Your task to perform on an android device: Open location settings Image 0: 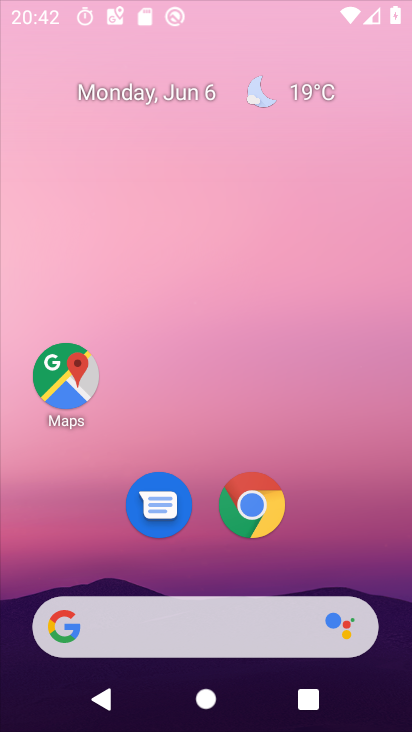
Step 0: press home button
Your task to perform on an android device: Open location settings Image 1: 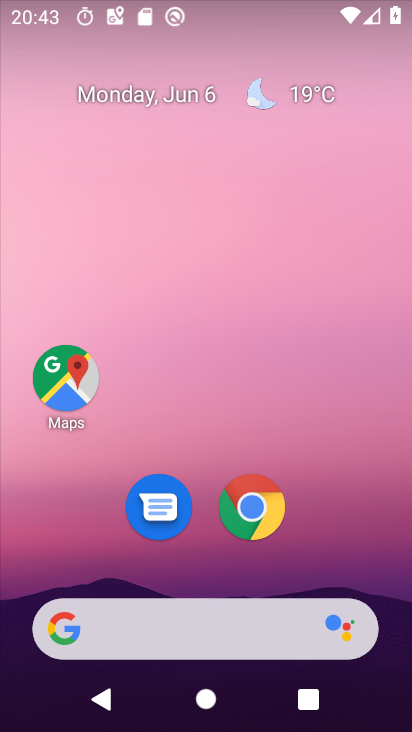
Step 1: drag from (353, 540) to (306, 37)
Your task to perform on an android device: Open location settings Image 2: 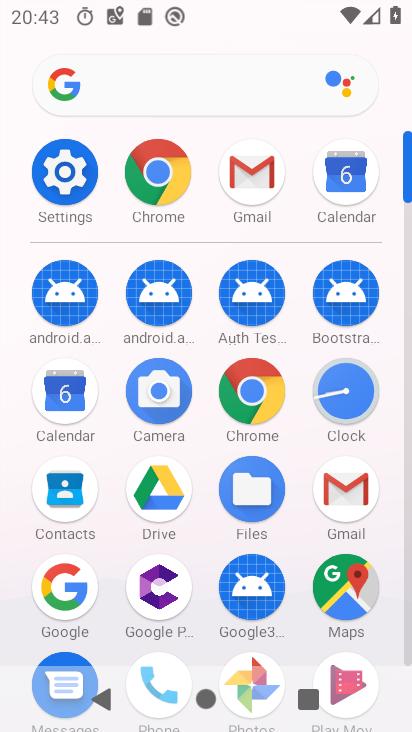
Step 2: click (83, 171)
Your task to perform on an android device: Open location settings Image 3: 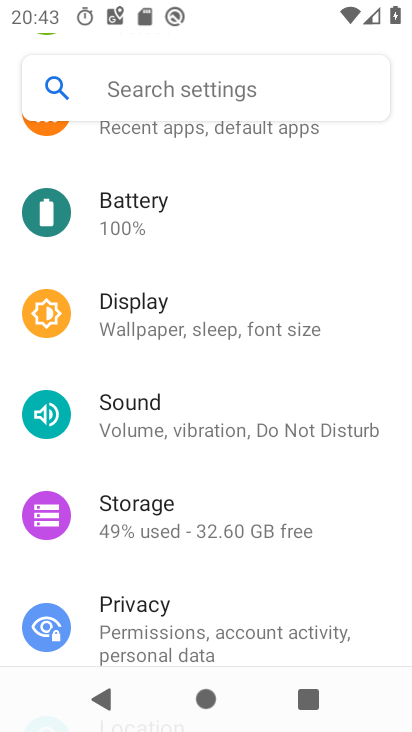
Step 3: drag from (246, 571) to (255, 100)
Your task to perform on an android device: Open location settings Image 4: 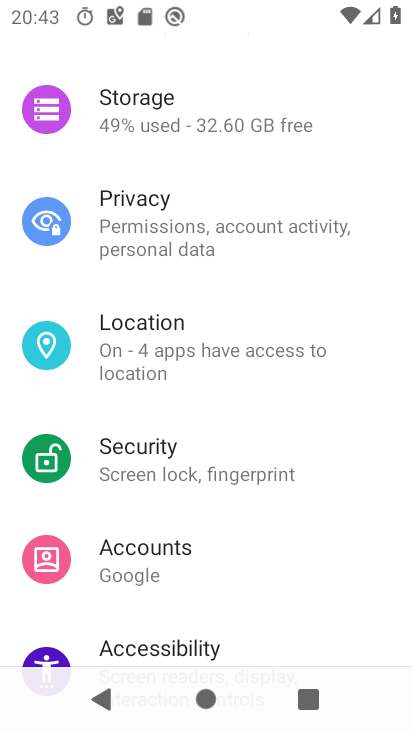
Step 4: click (127, 376)
Your task to perform on an android device: Open location settings Image 5: 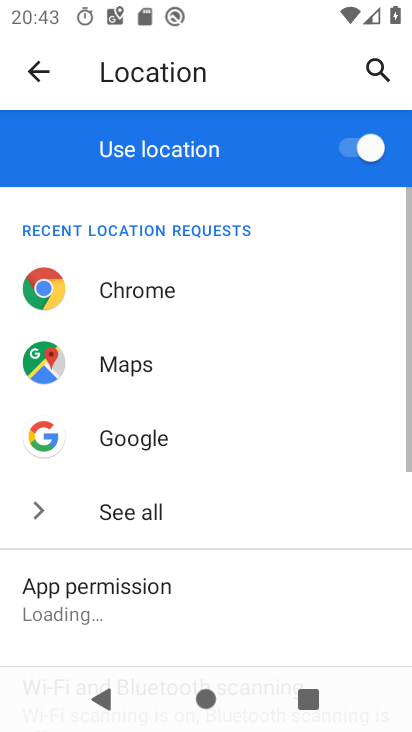
Step 5: task complete